Your task to perform on an android device: toggle airplane mode Image 0: 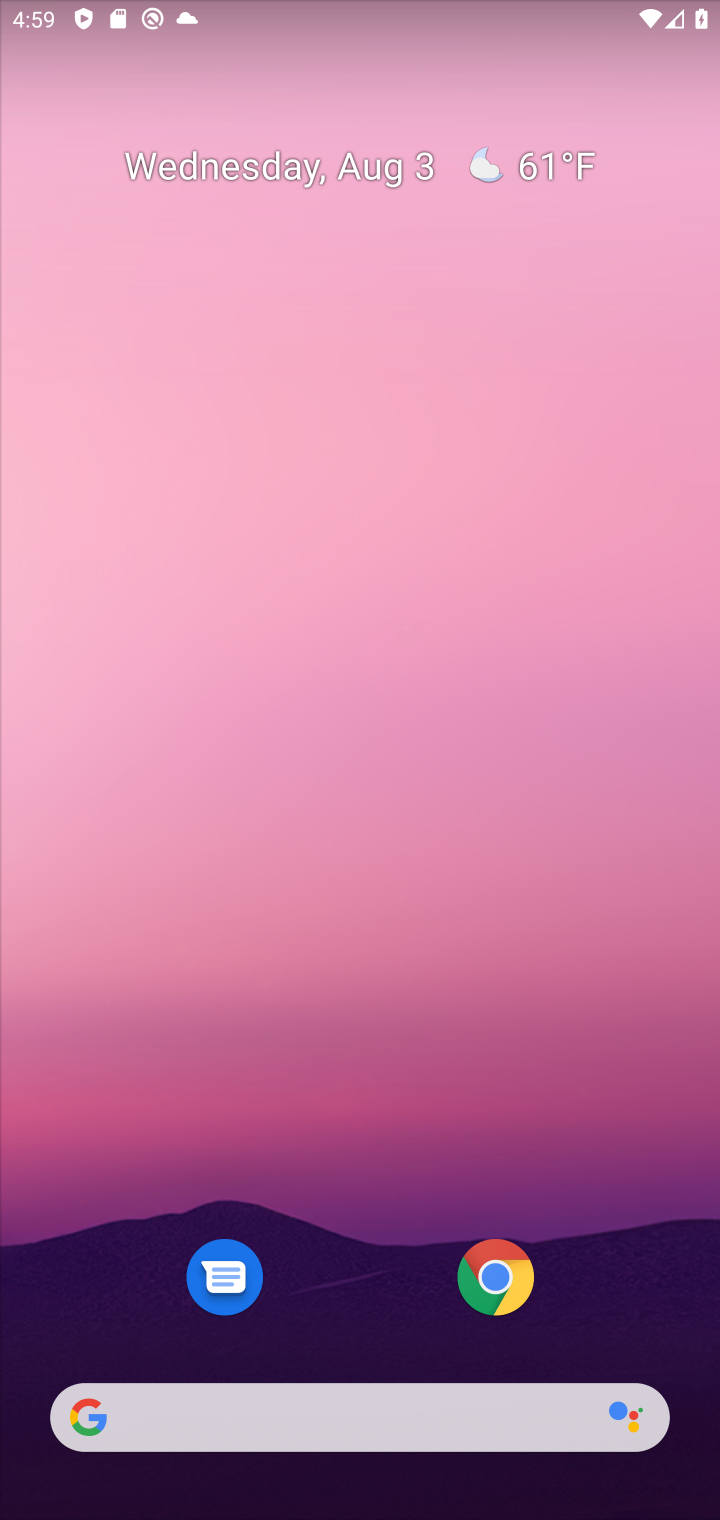
Step 0: press back button
Your task to perform on an android device: toggle airplane mode Image 1: 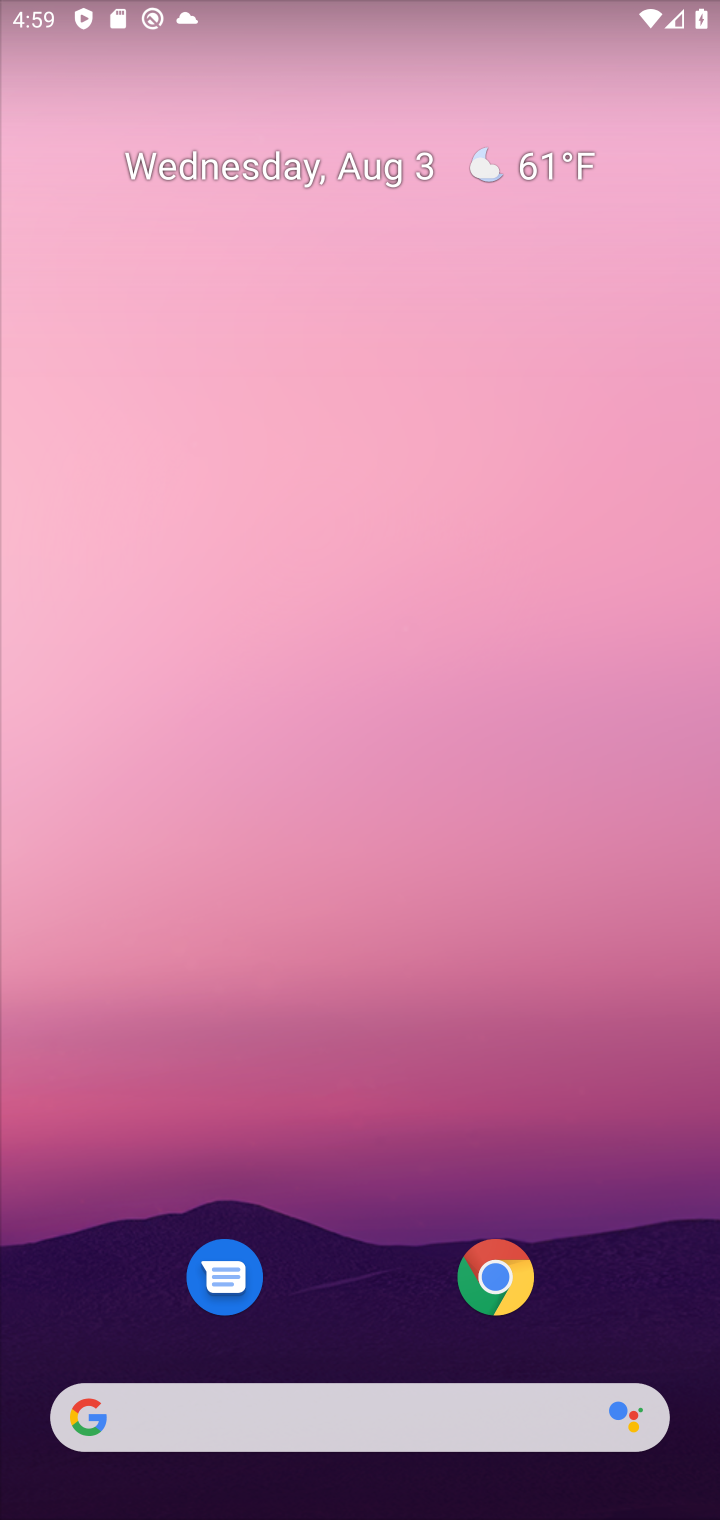
Step 1: drag from (611, 212) to (489, 635)
Your task to perform on an android device: toggle airplane mode Image 2: 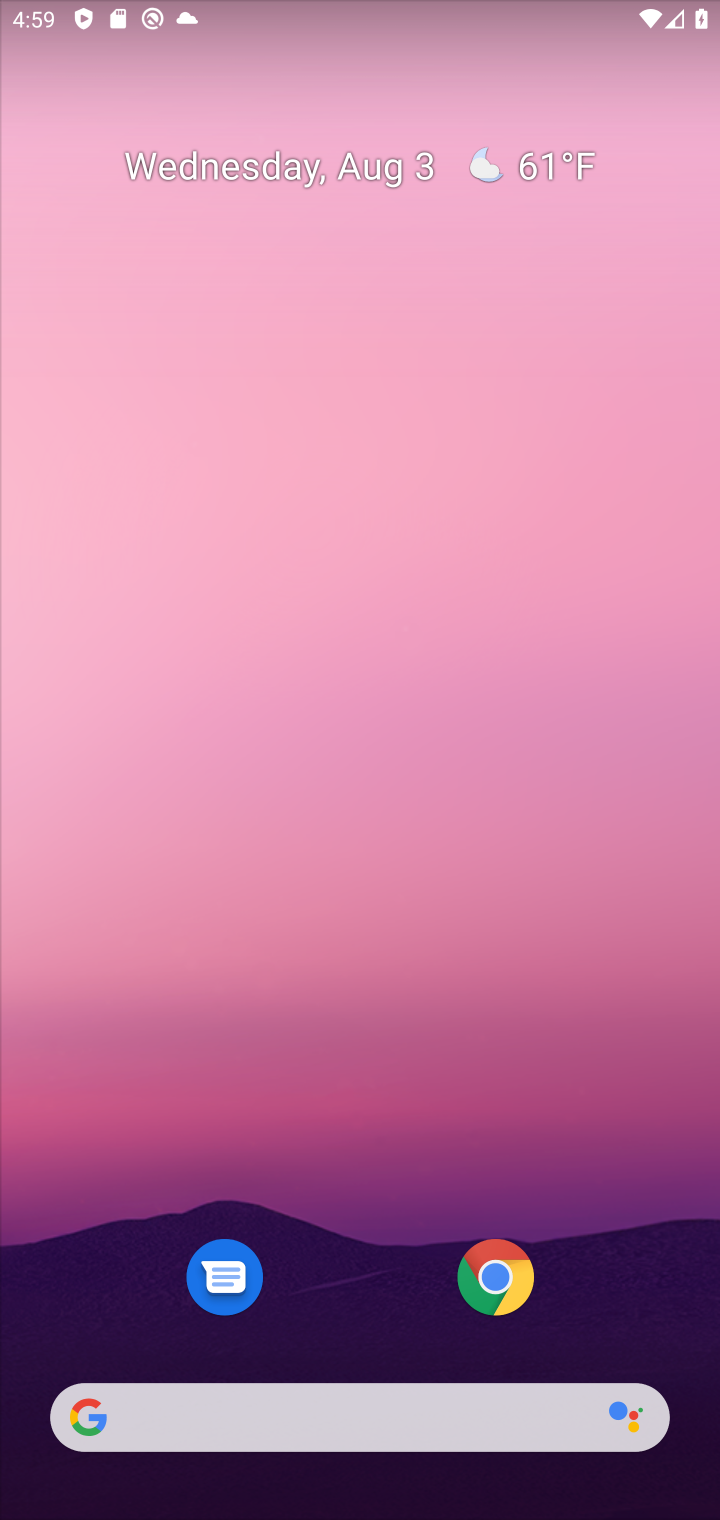
Step 2: drag from (654, 15) to (375, 1078)
Your task to perform on an android device: toggle airplane mode Image 3: 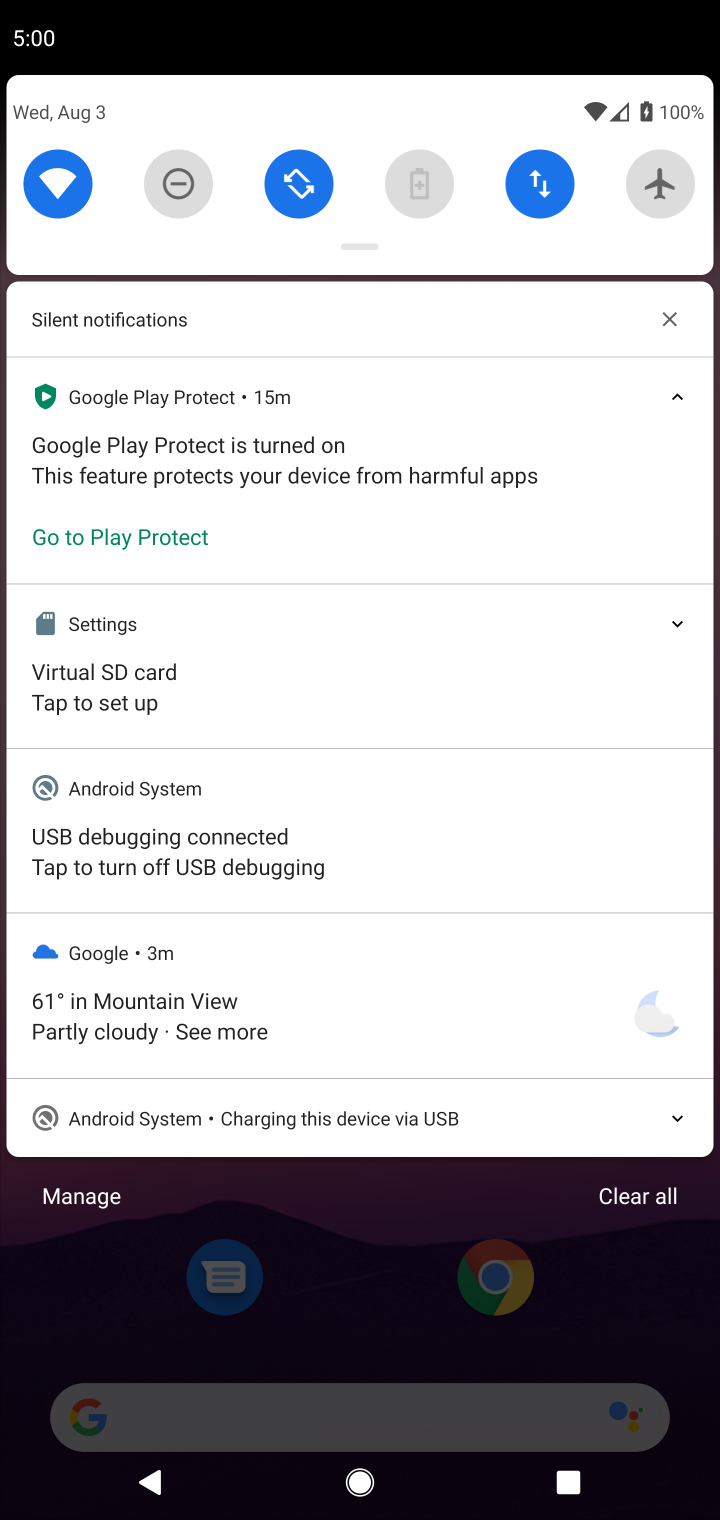
Step 3: click (665, 181)
Your task to perform on an android device: toggle airplane mode Image 4: 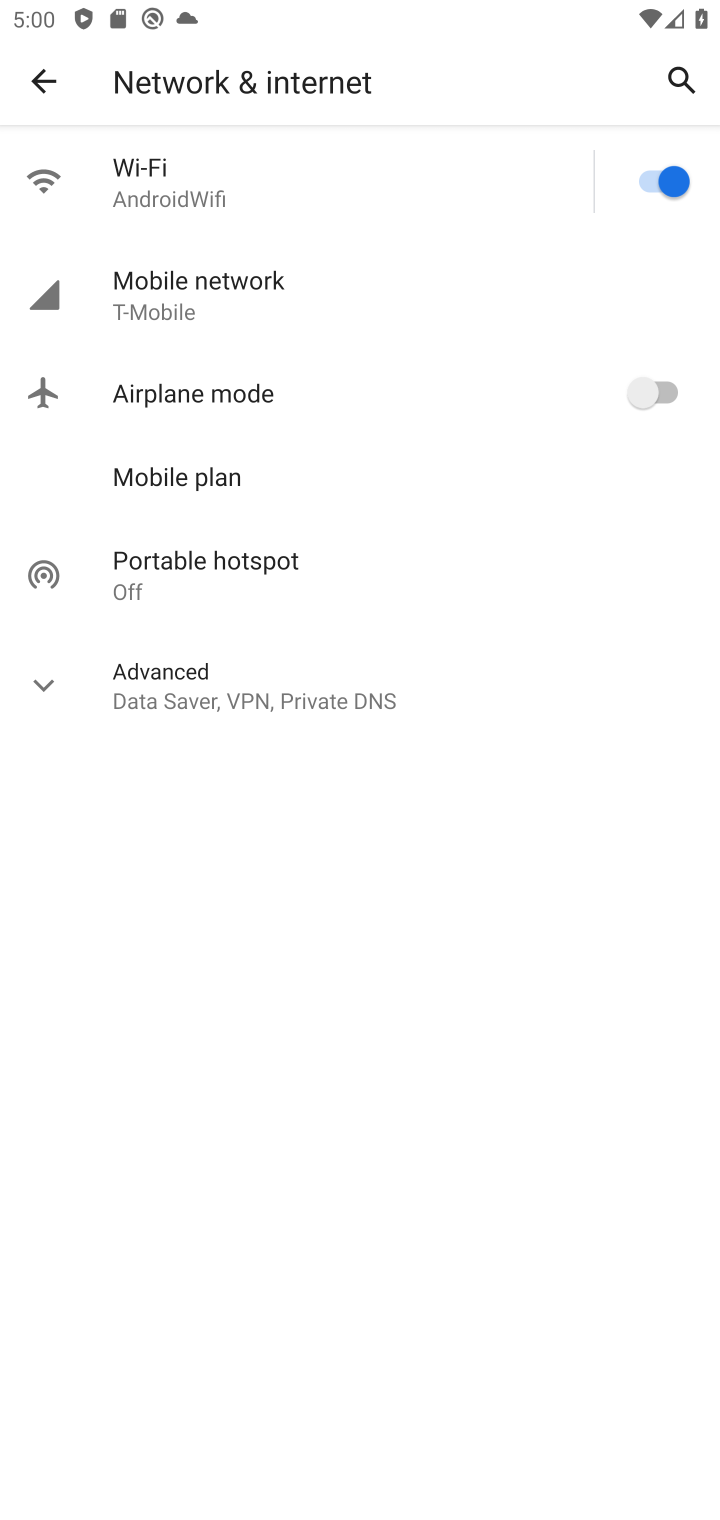
Step 4: task complete